Your task to perform on an android device: check battery use Image 0: 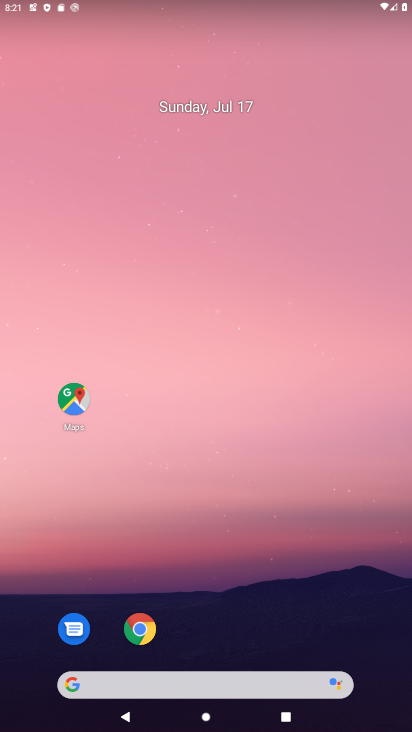
Step 0: drag from (232, 697) to (243, 109)
Your task to perform on an android device: check battery use Image 1: 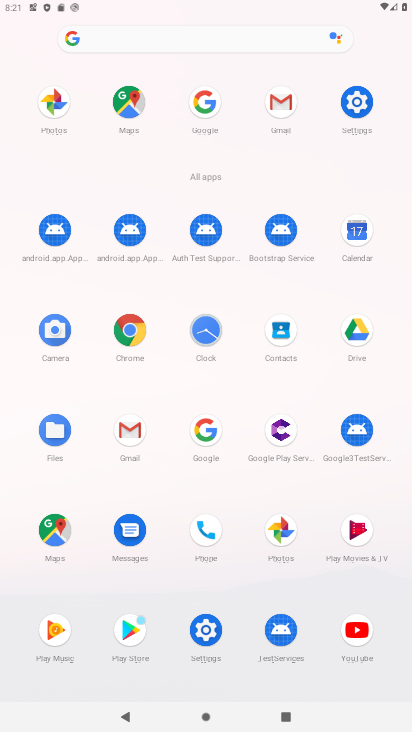
Step 1: click (352, 100)
Your task to perform on an android device: check battery use Image 2: 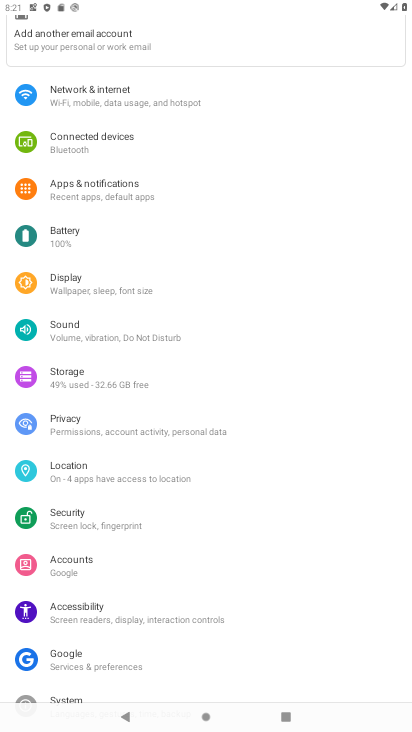
Step 2: click (68, 233)
Your task to perform on an android device: check battery use Image 3: 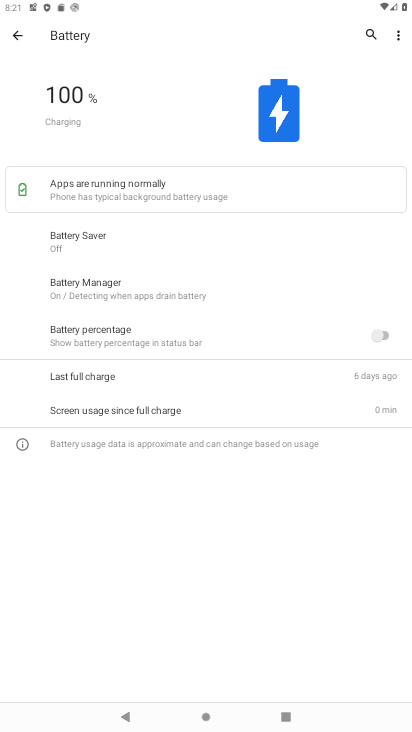
Step 3: click (396, 39)
Your task to perform on an android device: check battery use Image 4: 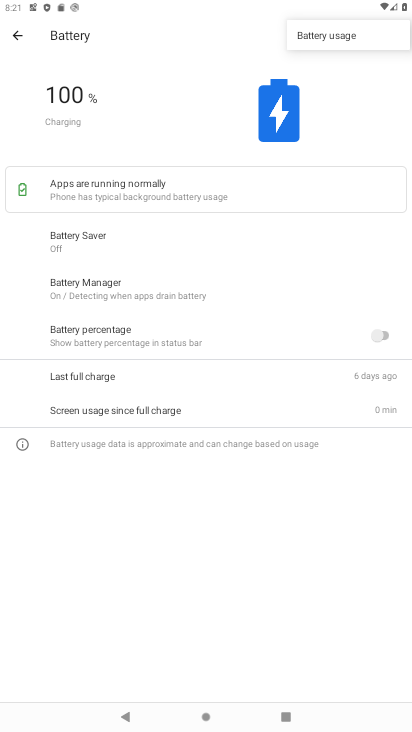
Step 4: click (319, 34)
Your task to perform on an android device: check battery use Image 5: 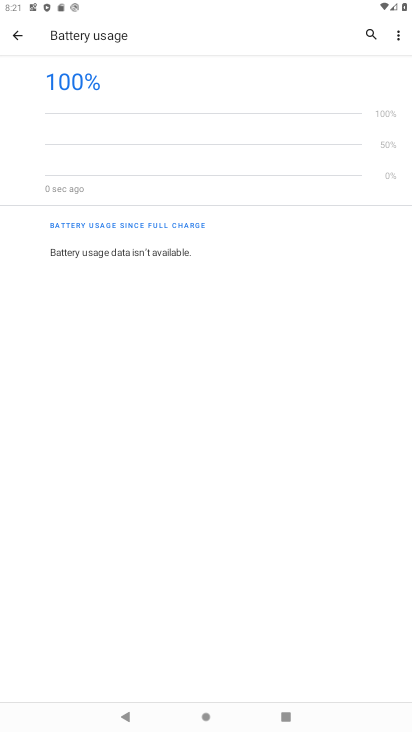
Step 5: task complete